Your task to perform on an android device: toggle notifications settings in the gmail app Image 0: 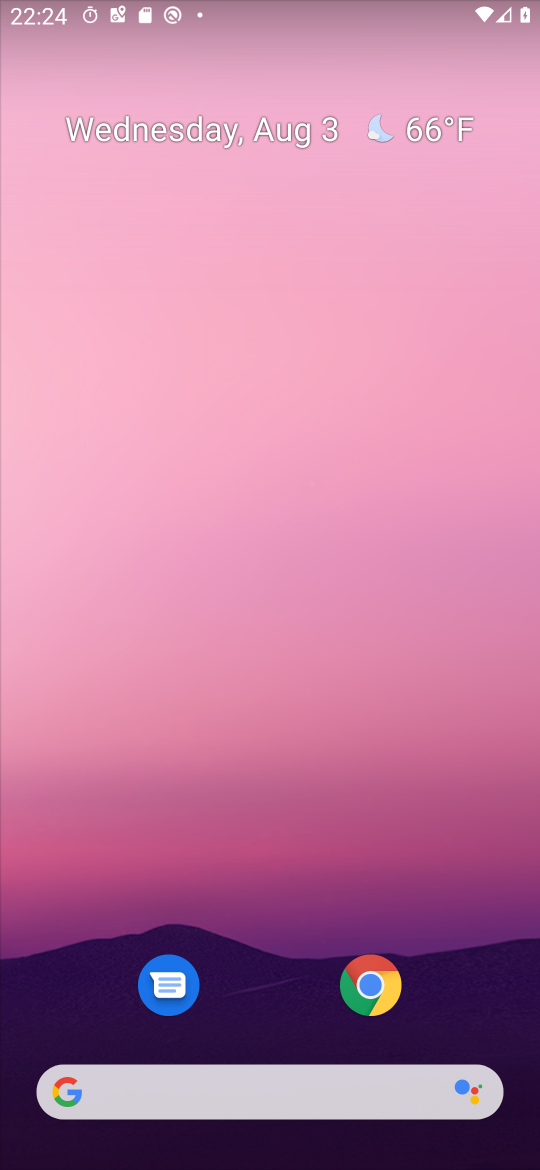
Step 0: drag from (244, 862) to (240, 188)
Your task to perform on an android device: toggle notifications settings in the gmail app Image 1: 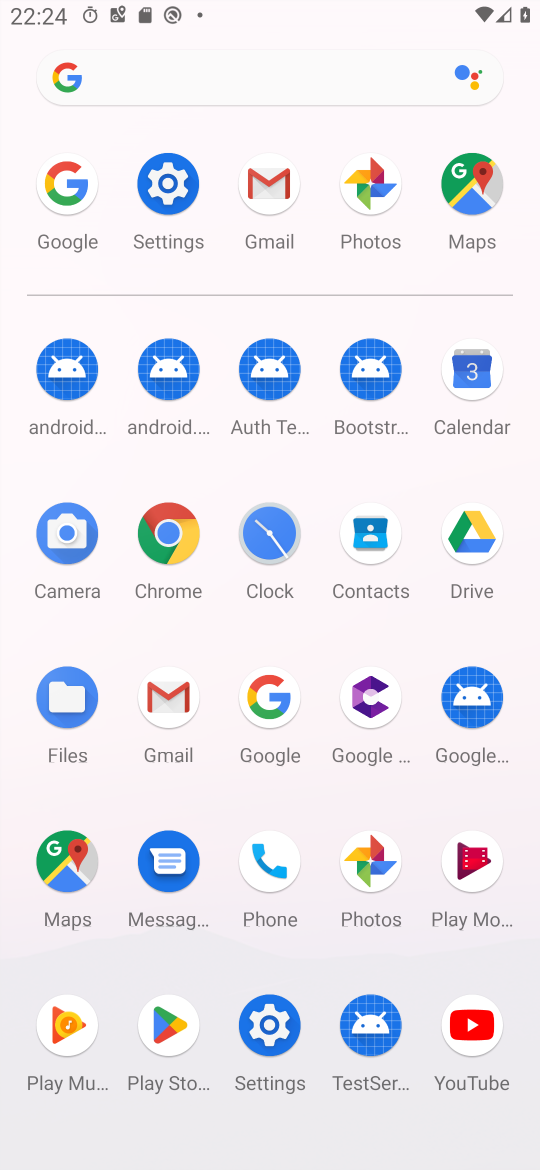
Step 1: click (243, 204)
Your task to perform on an android device: toggle notifications settings in the gmail app Image 2: 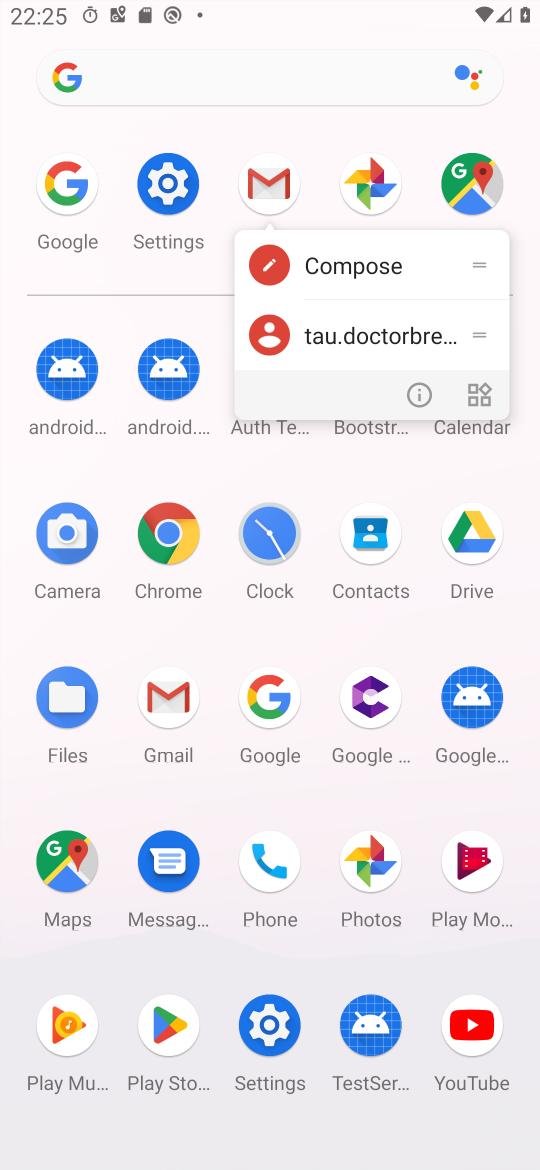
Step 2: click (267, 186)
Your task to perform on an android device: toggle notifications settings in the gmail app Image 3: 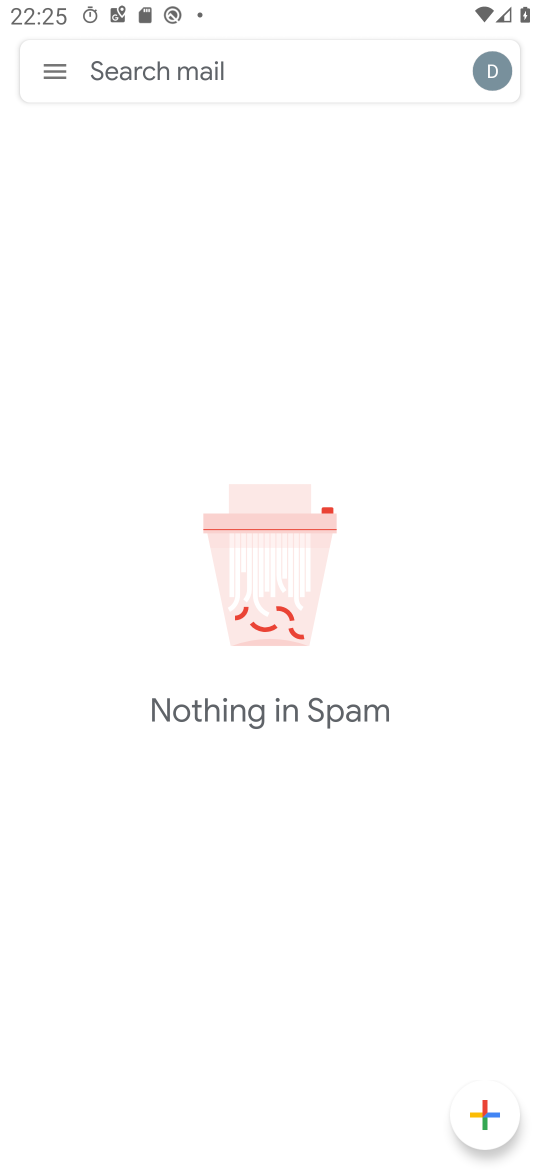
Step 3: click (44, 78)
Your task to perform on an android device: toggle notifications settings in the gmail app Image 4: 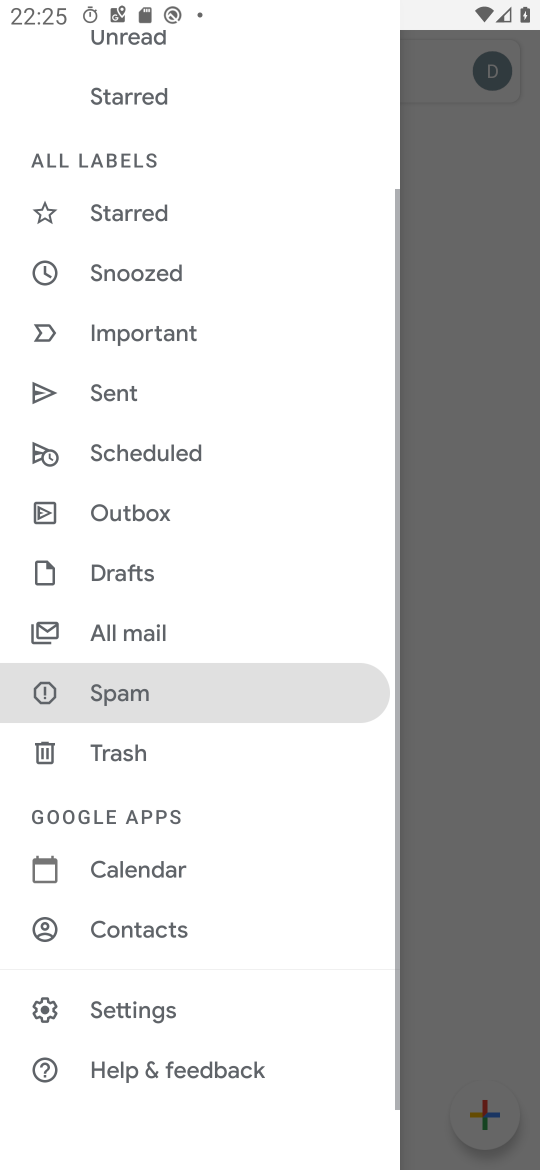
Step 4: click (147, 1002)
Your task to perform on an android device: toggle notifications settings in the gmail app Image 5: 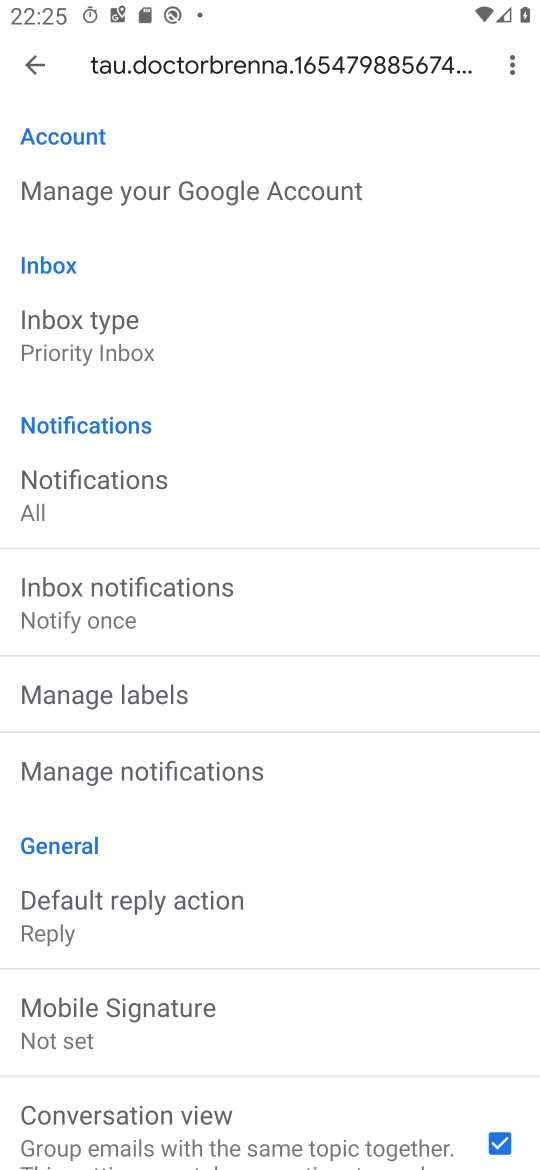
Step 5: click (155, 768)
Your task to perform on an android device: toggle notifications settings in the gmail app Image 6: 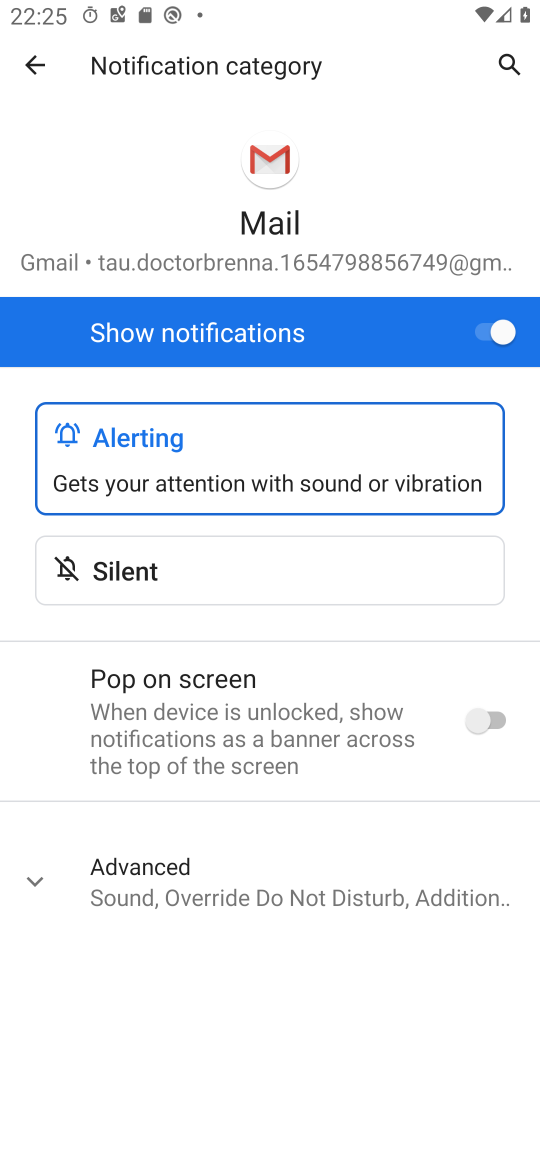
Step 6: click (466, 330)
Your task to perform on an android device: toggle notifications settings in the gmail app Image 7: 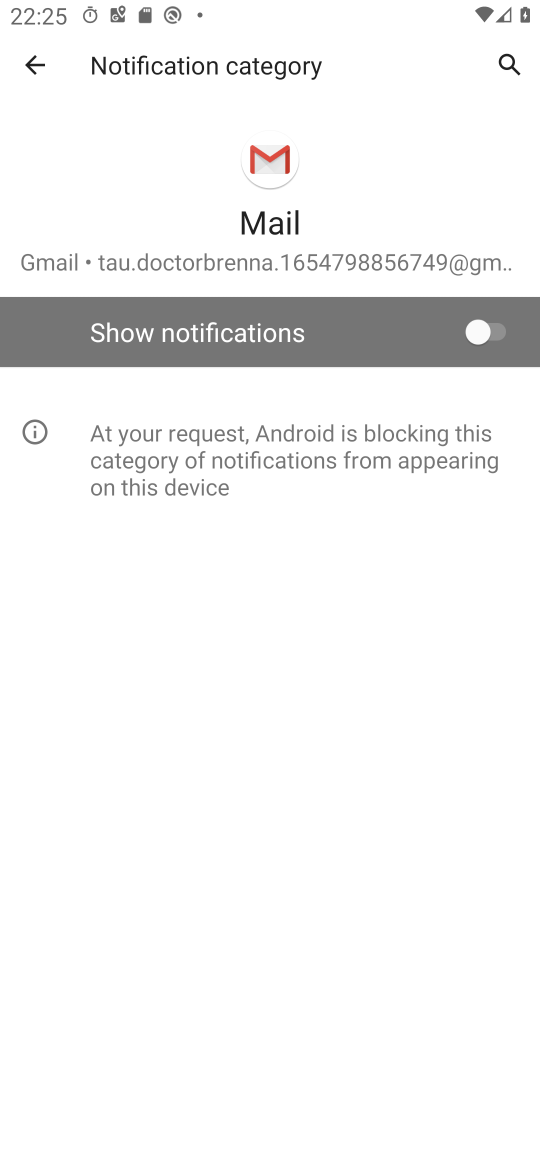
Step 7: task complete